Your task to perform on an android device: change notifications settings Image 0: 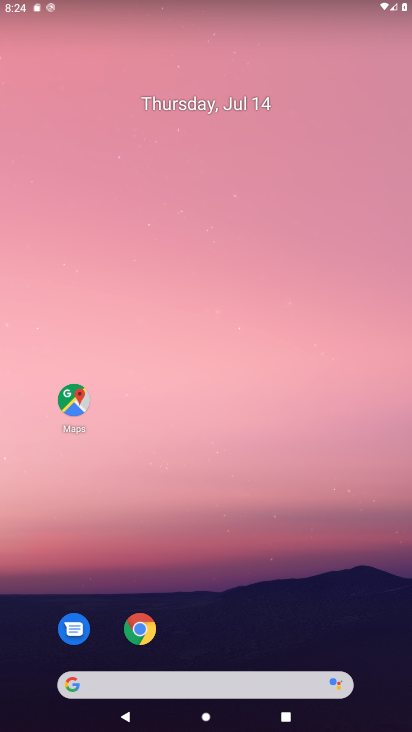
Step 0: drag from (204, 641) to (224, 4)
Your task to perform on an android device: change notifications settings Image 1: 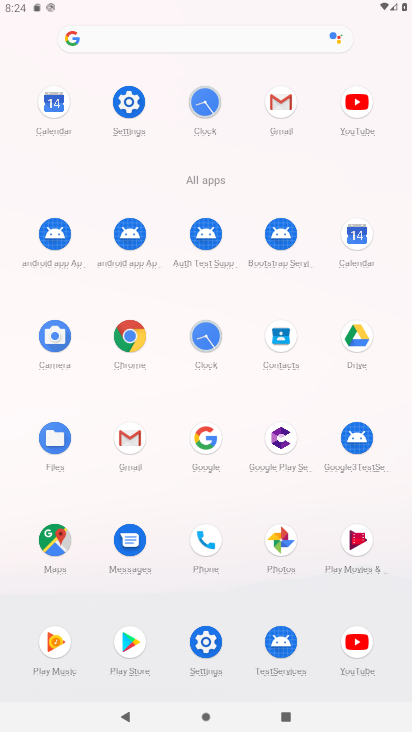
Step 1: click (193, 649)
Your task to perform on an android device: change notifications settings Image 2: 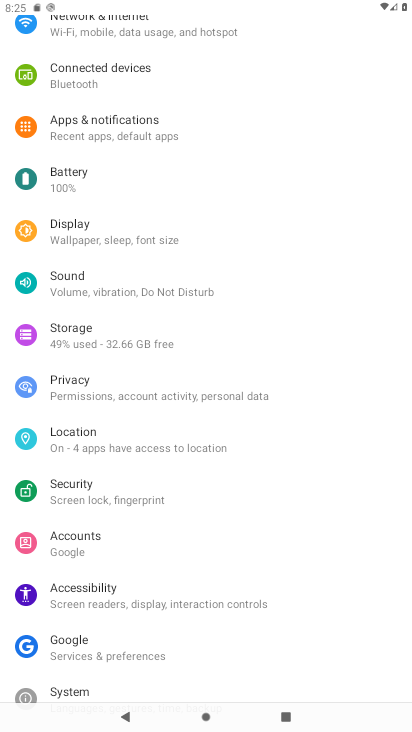
Step 2: click (150, 140)
Your task to perform on an android device: change notifications settings Image 3: 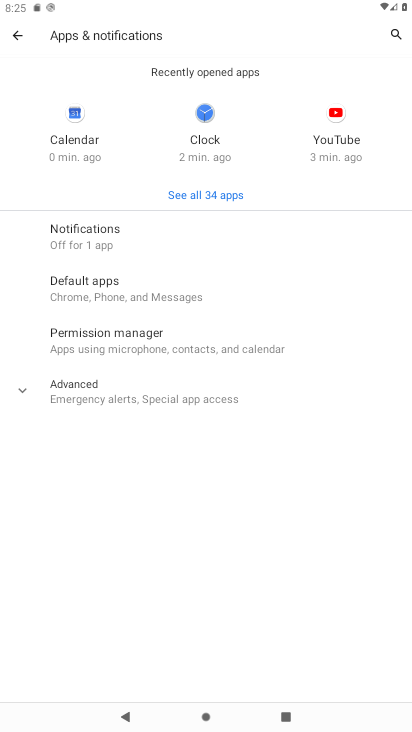
Step 3: click (98, 244)
Your task to perform on an android device: change notifications settings Image 4: 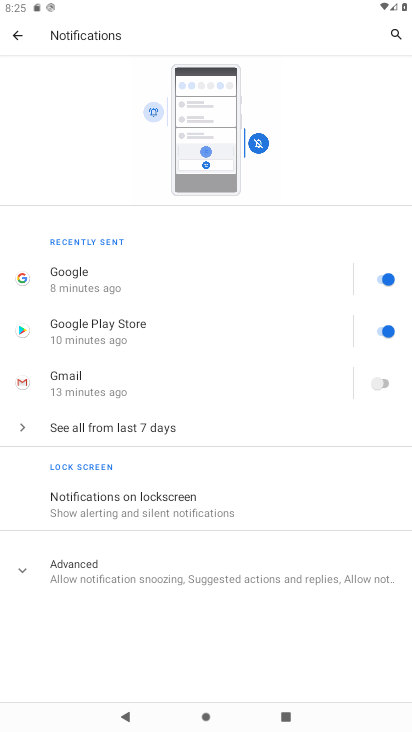
Step 4: click (143, 427)
Your task to perform on an android device: change notifications settings Image 5: 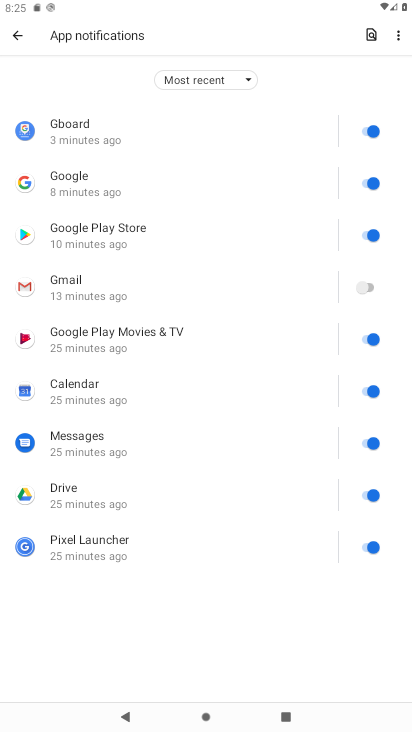
Step 5: click (360, 126)
Your task to perform on an android device: change notifications settings Image 6: 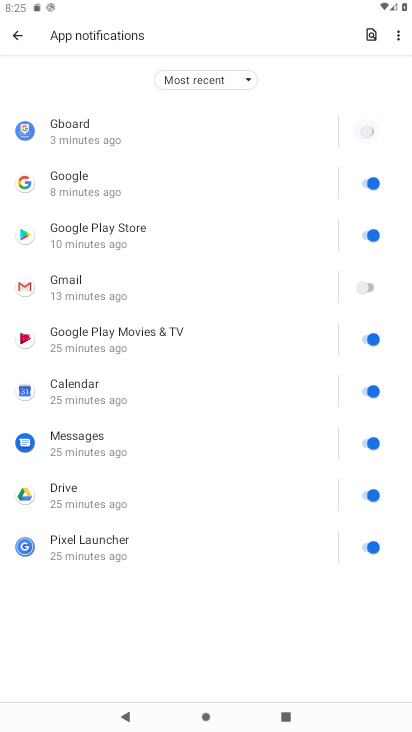
Step 6: click (358, 188)
Your task to perform on an android device: change notifications settings Image 7: 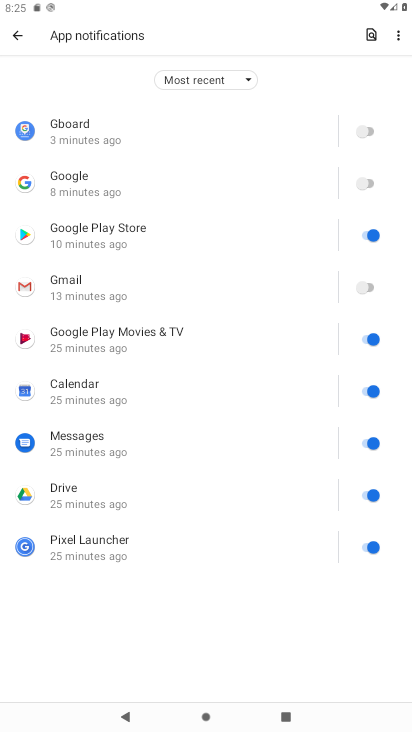
Step 7: click (352, 227)
Your task to perform on an android device: change notifications settings Image 8: 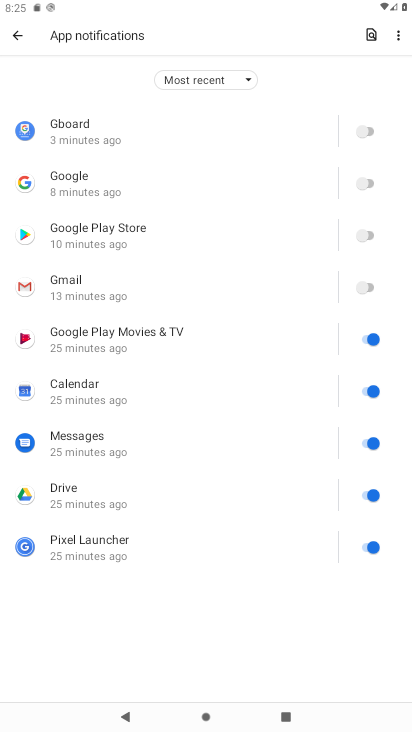
Step 8: click (362, 333)
Your task to perform on an android device: change notifications settings Image 9: 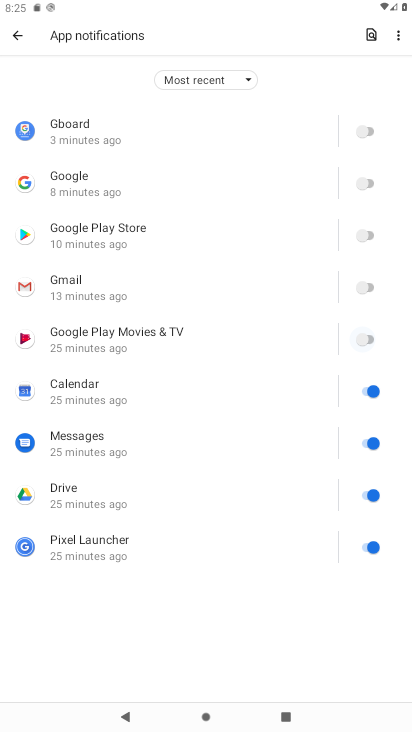
Step 9: click (361, 388)
Your task to perform on an android device: change notifications settings Image 10: 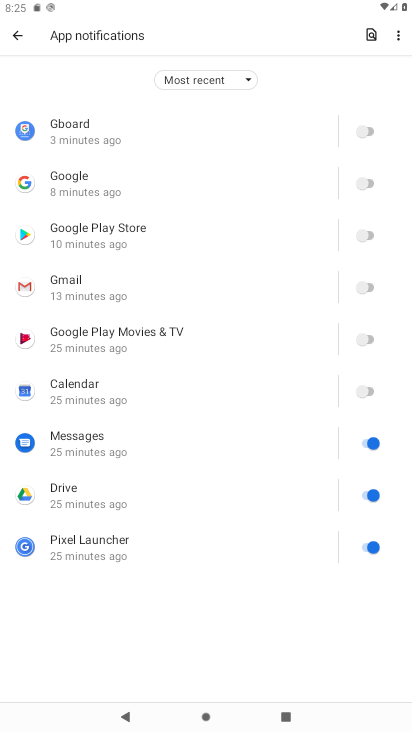
Step 10: click (354, 447)
Your task to perform on an android device: change notifications settings Image 11: 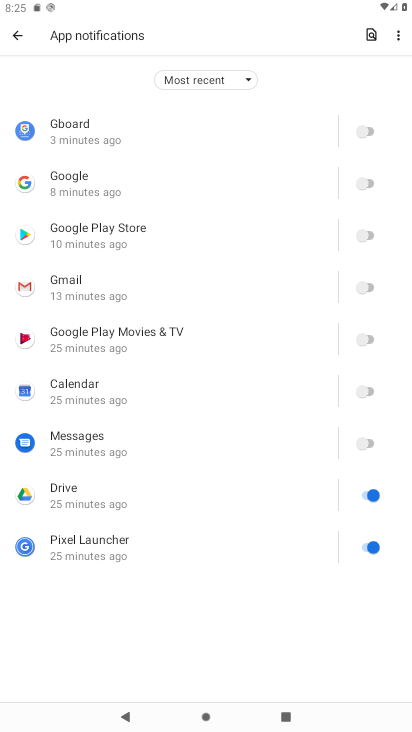
Step 11: click (355, 493)
Your task to perform on an android device: change notifications settings Image 12: 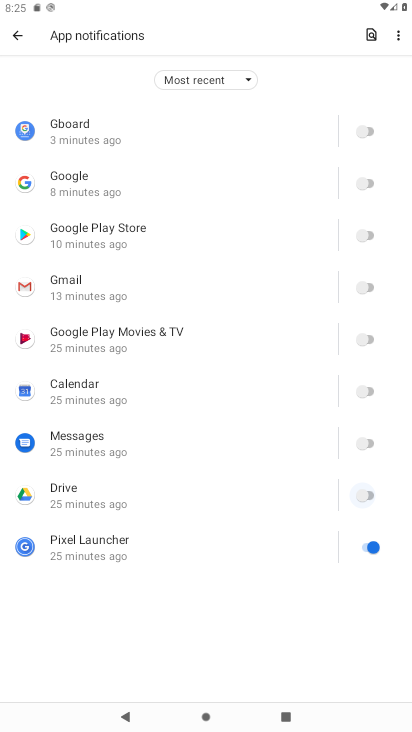
Step 12: click (367, 549)
Your task to perform on an android device: change notifications settings Image 13: 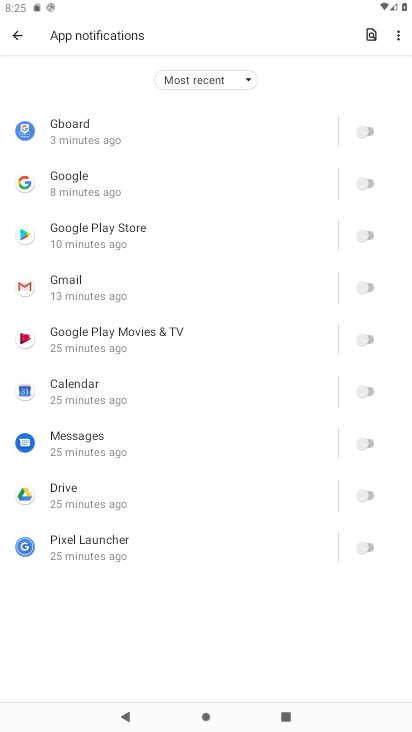
Step 13: task complete